Your task to perform on an android device: Open Google Chrome Image 0: 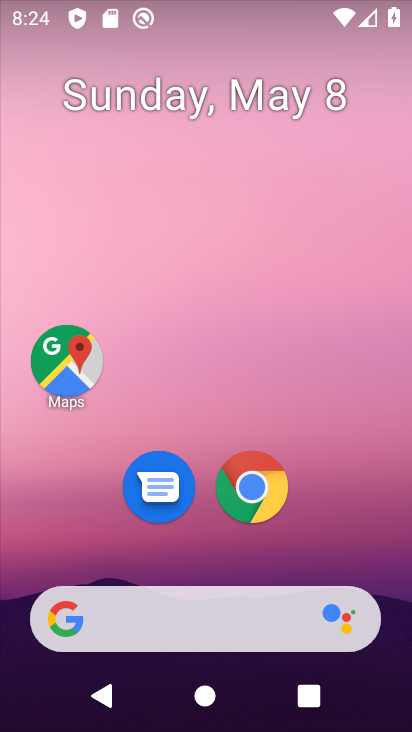
Step 0: click (251, 504)
Your task to perform on an android device: Open Google Chrome Image 1: 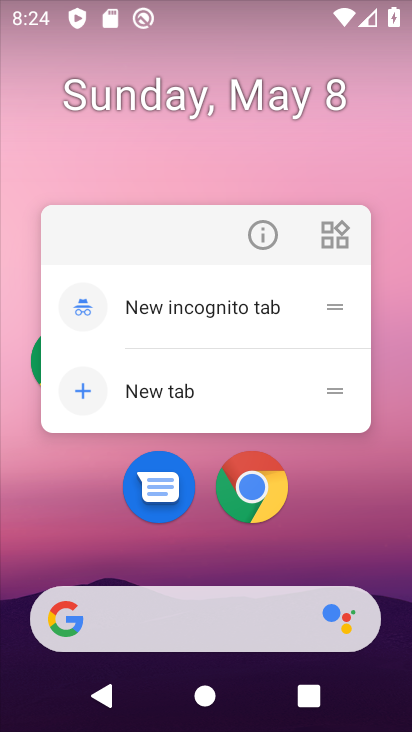
Step 1: click (245, 494)
Your task to perform on an android device: Open Google Chrome Image 2: 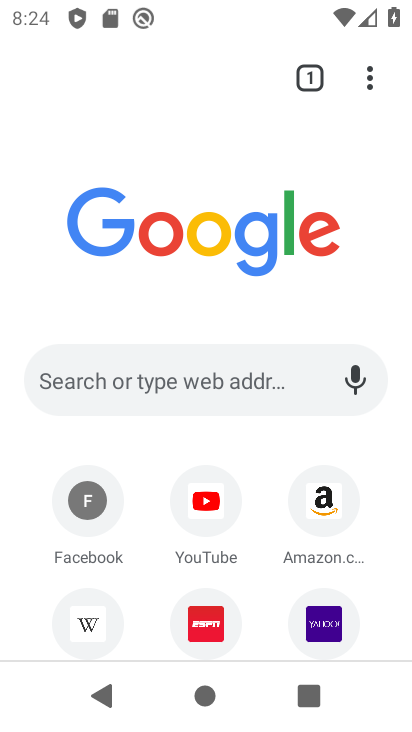
Step 2: drag from (365, 85) to (383, 561)
Your task to perform on an android device: Open Google Chrome Image 3: 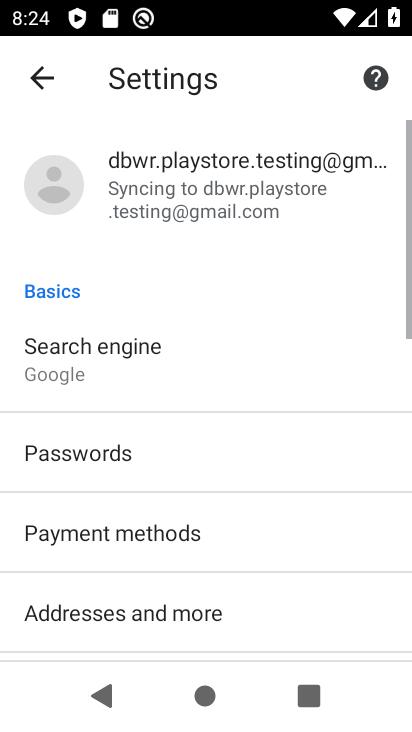
Step 3: click (110, 682)
Your task to perform on an android device: Open Google Chrome Image 4: 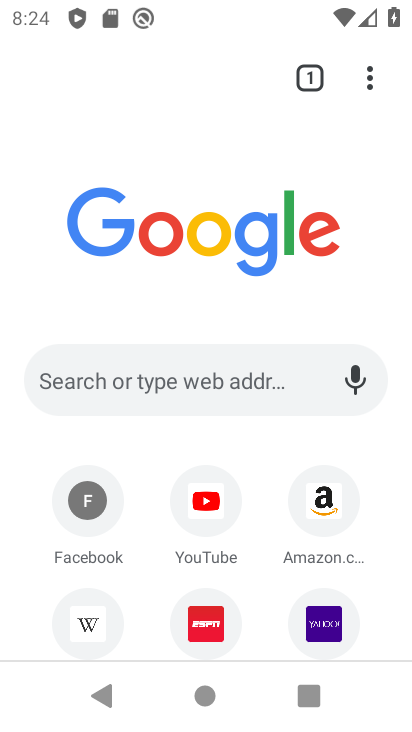
Step 4: task complete